Your task to perform on an android device: change keyboard looks Image 0: 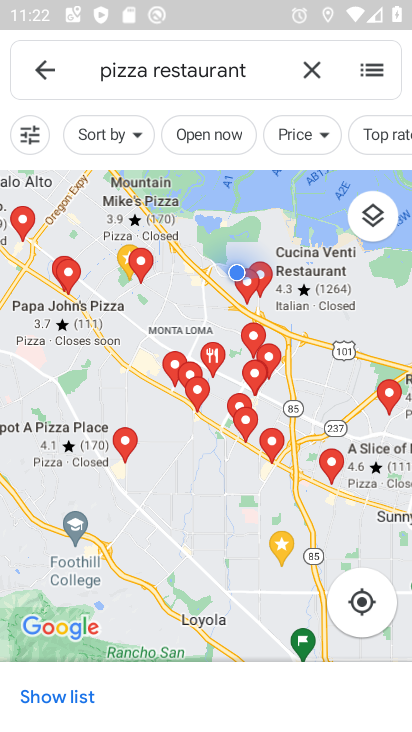
Step 0: press home button
Your task to perform on an android device: change keyboard looks Image 1: 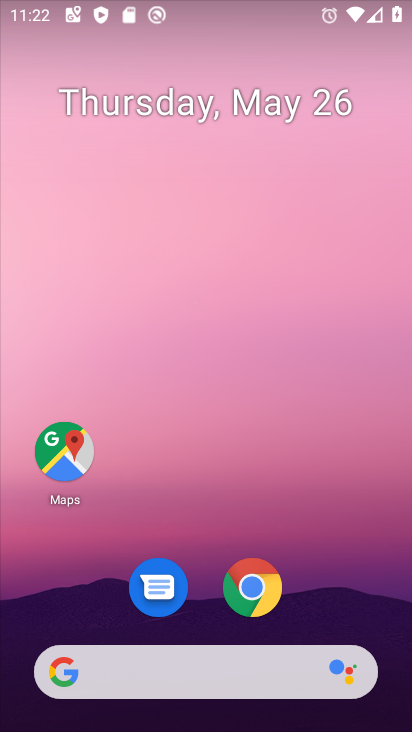
Step 1: drag from (257, 712) to (344, 199)
Your task to perform on an android device: change keyboard looks Image 2: 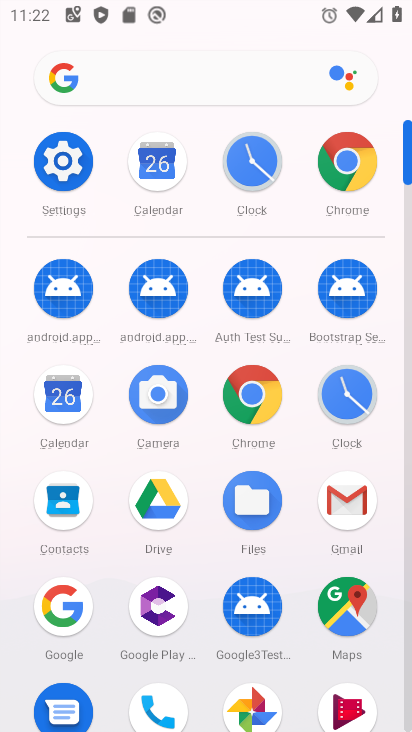
Step 2: click (69, 169)
Your task to perform on an android device: change keyboard looks Image 3: 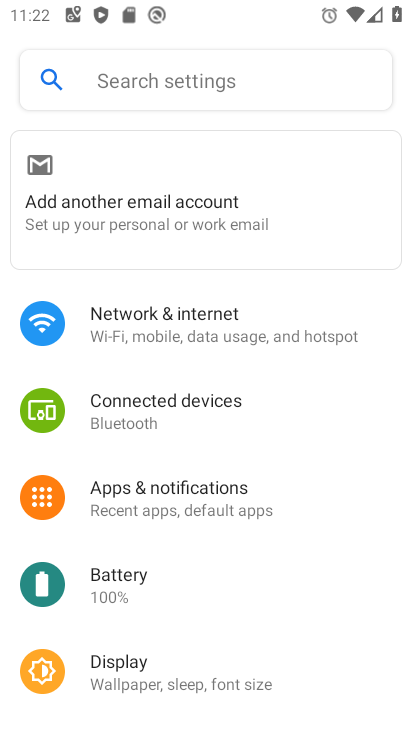
Step 3: click (153, 77)
Your task to perform on an android device: change keyboard looks Image 4: 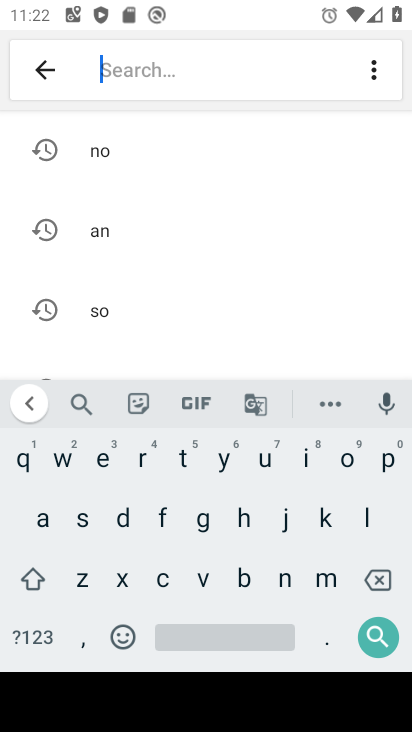
Step 4: click (309, 529)
Your task to perform on an android device: change keyboard looks Image 5: 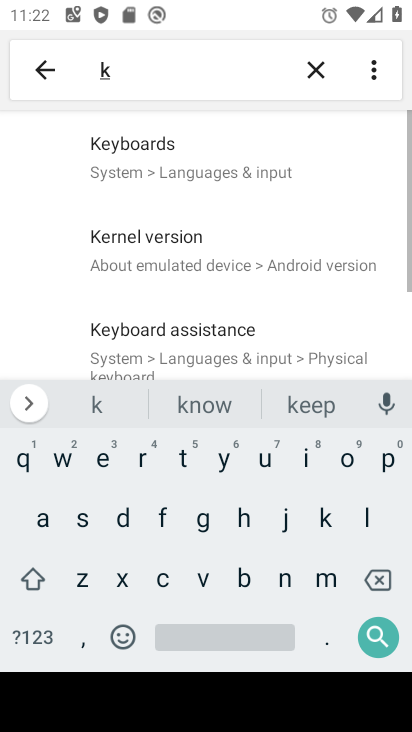
Step 5: click (99, 455)
Your task to perform on an android device: change keyboard looks Image 6: 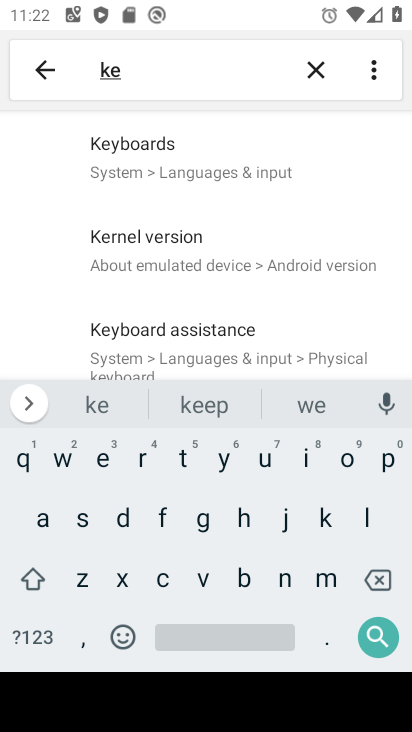
Step 6: click (180, 171)
Your task to perform on an android device: change keyboard looks Image 7: 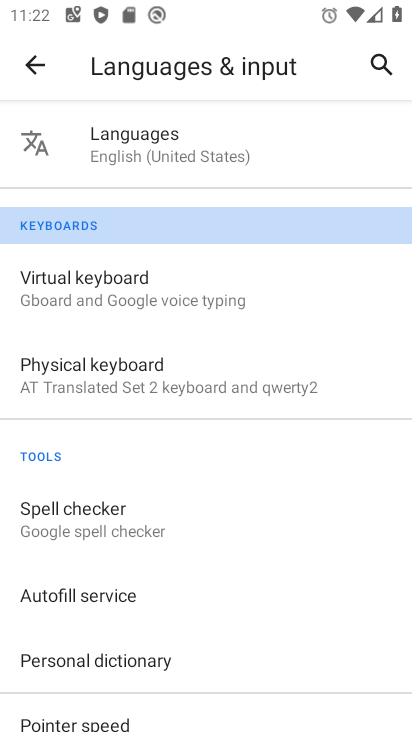
Step 7: click (149, 288)
Your task to perform on an android device: change keyboard looks Image 8: 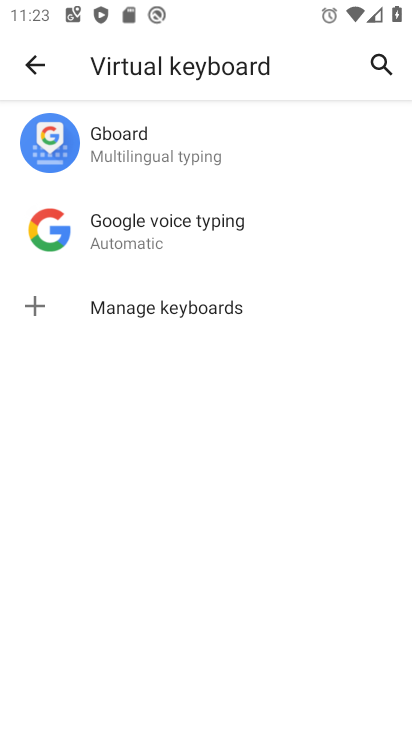
Step 8: click (191, 168)
Your task to perform on an android device: change keyboard looks Image 9: 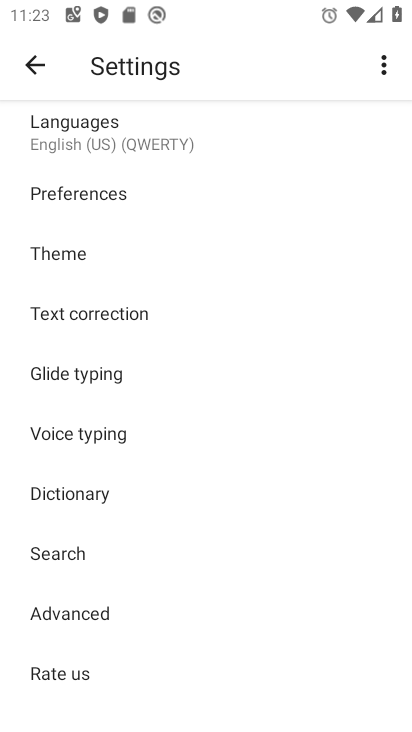
Step 9: click (72, 253)
Your task to perform on an android device: change keyboard looks Image 10: 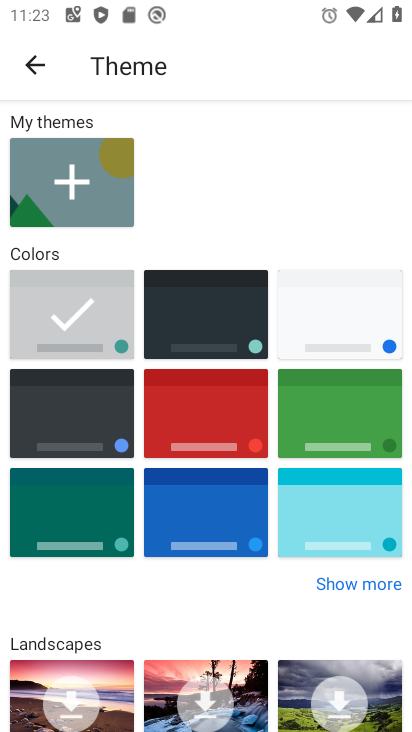
Step 10: click (72, 409)
Your task to perform on an android device: change keyboard looks Image 11: 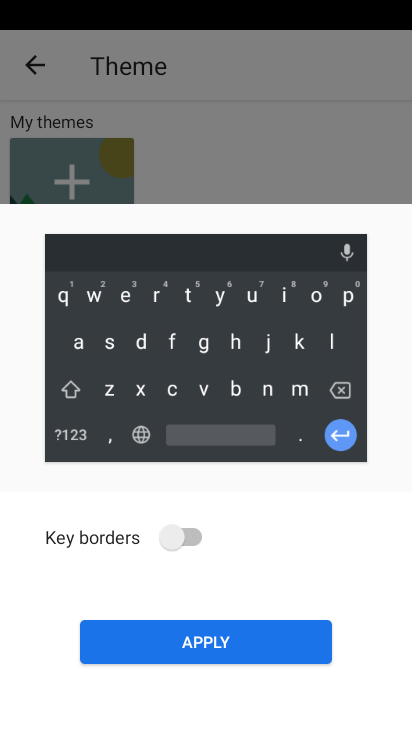
Step 11: click (191, 550)
Your task to perform on an android device: change keyboard looks Image 12: 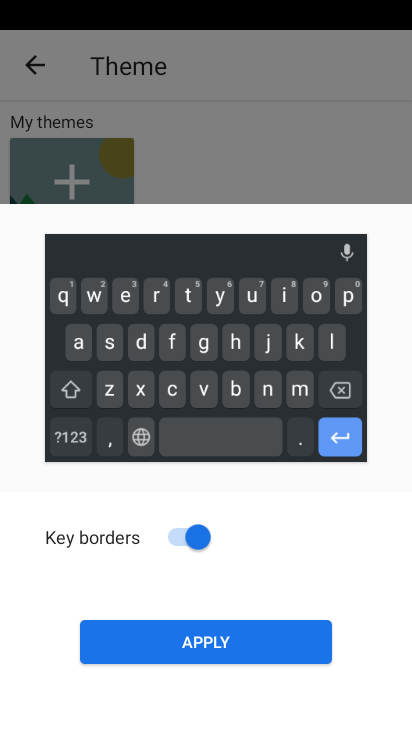
Step 12: click (215, 657)
Your task to perform on an android device: change keyboard looks Image 13: 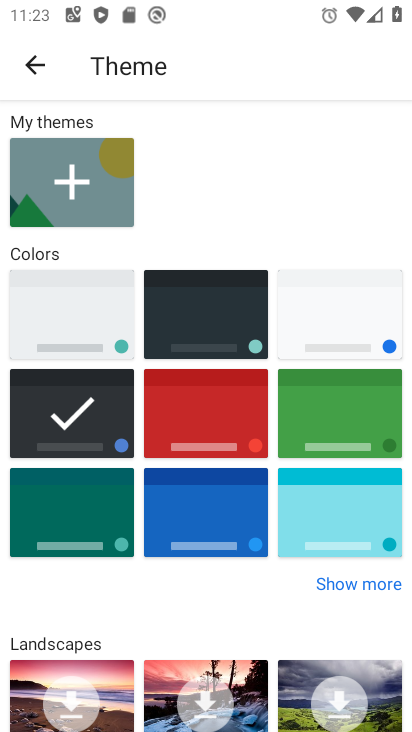
Step 13: task complete